Your task to perform on an android device: Open maps Image 0: 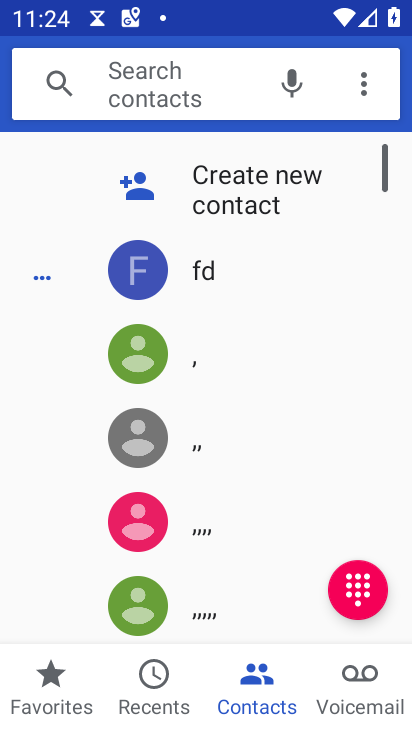
Step 0: press home button
Your task to perform on an android device: Open maps Image 1: 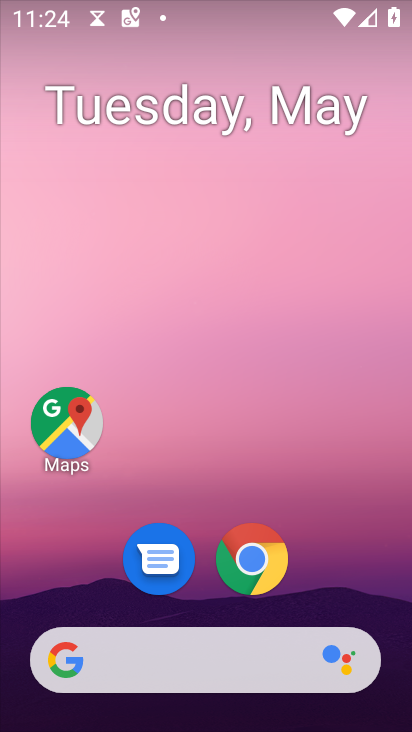
Step 1: drag from (352, 562) to (348, 0)
Your task to perform on an android device: Open maps Image 2: 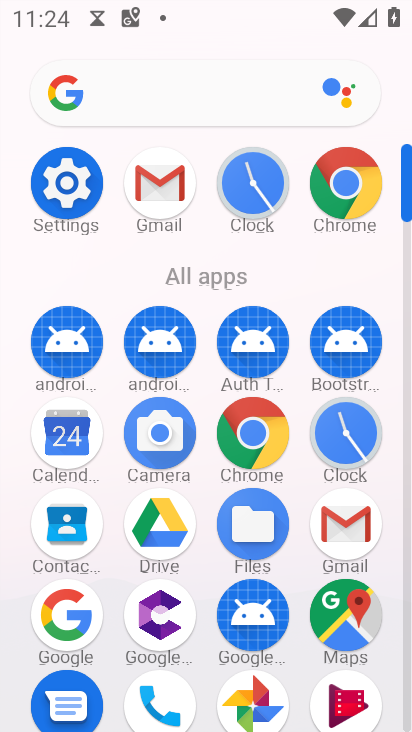
Step 2: click (359, 635)
Your task to perform on an android device: Open maps Image 3: 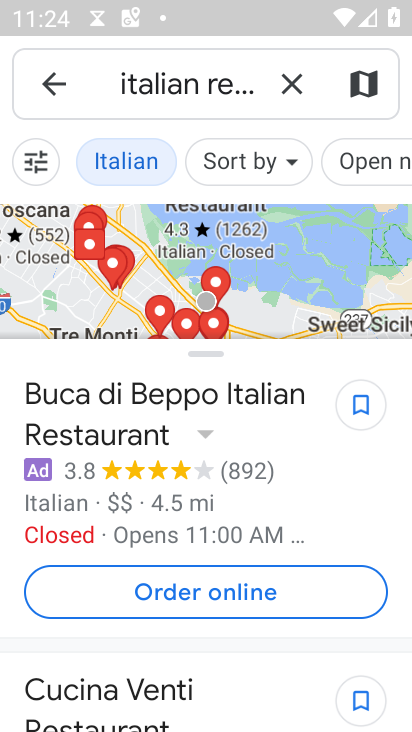
Step 3: task complete